Your task to perform on an android device: Open Google Maps and go to "Timeline" Image 0: 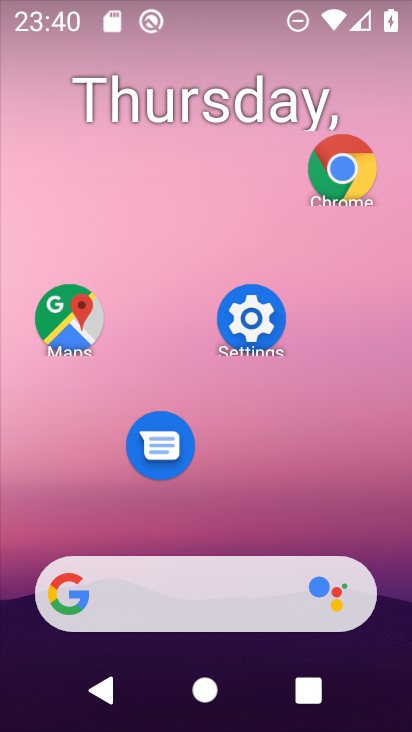
Step 0: drag from (211, 550) to (208, 197)
Your task to perform on an android device: Open Google Maps and go to "Timeline" Image 1: 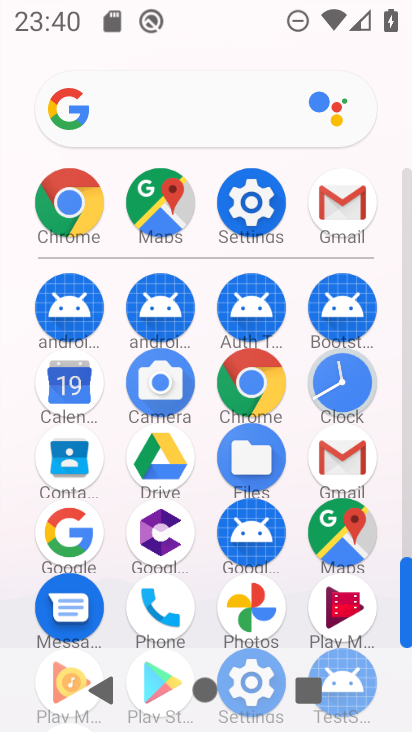
Step 1: click (343, 523)
Your task to perform on an android device: Open Google Maps and go to "Timeline" Image 2: 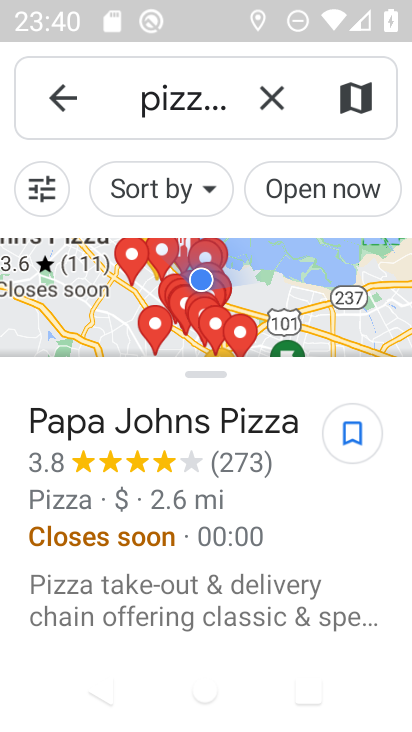
Step 2: click (40, 85)
Your task to perform on an android device: Open Google Maps and go to "Timeline" Image 3: 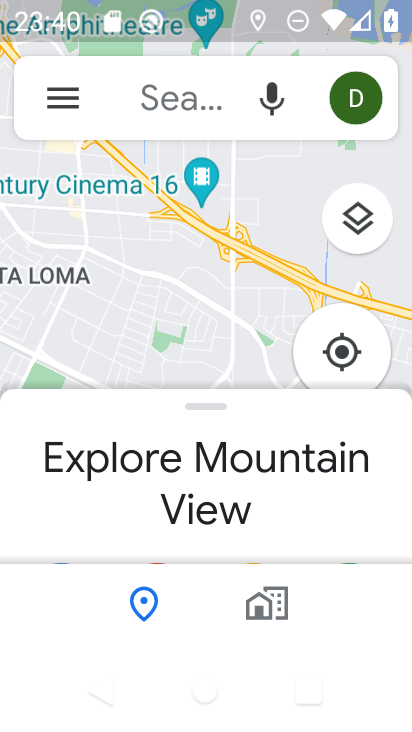
Step 3: click (57, 105)
Your task to perform on an android device: Open Google Maps and go to "Timeline" Image 4: 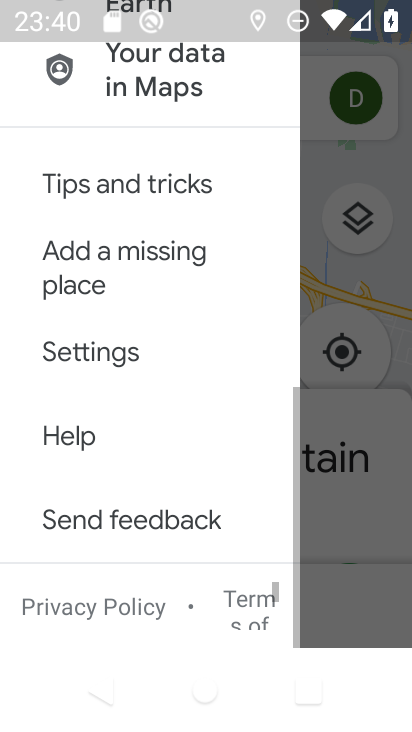
Step 4: drag from (139, 252) to (192, 561)
Your task to perform on an android device: Open Google Maps and go to "Timeline" Image 5: 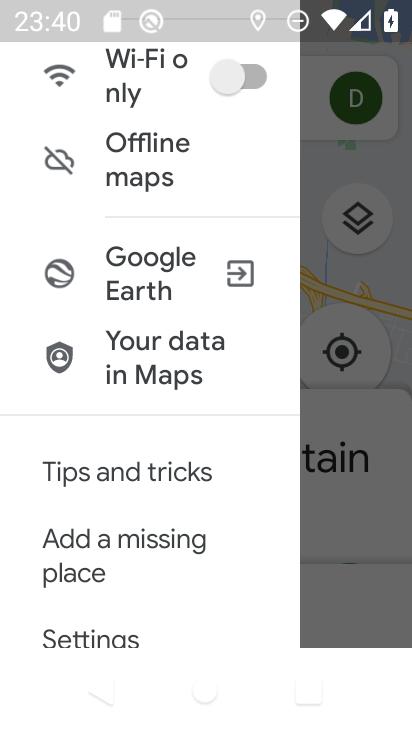
Step 5: drag from (186, 421) to (280, 711)
Your task to perform on an android device: Open Google Maps and go to "Timeline" Image 6: 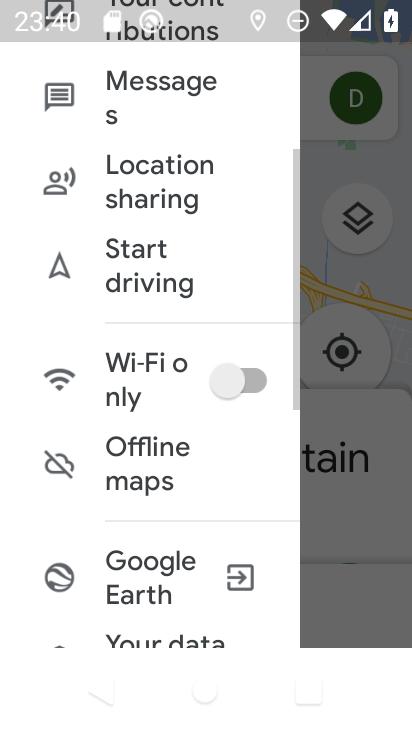
Step 6: drag from (171, 200) to (269, 666)
Your task to perform on an android device: Open Google Maps and go to "Timeline" Image 7: 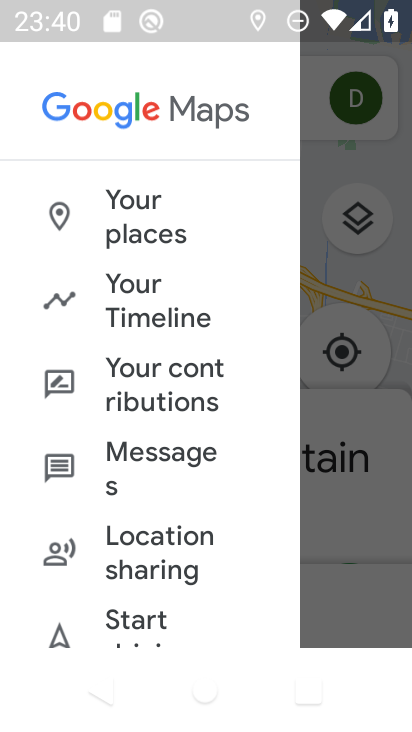
Step 7: click (127, 305)
Your task to perform on an android device: Open Google Maps and go to "Timeline" Image 8: 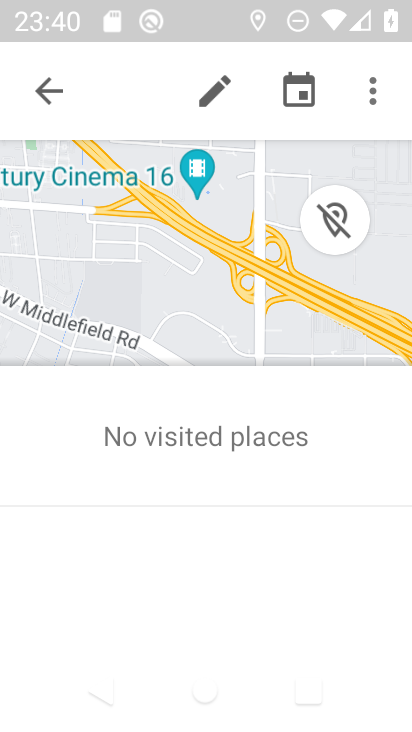
Step 8: task complete